Your task to perform on an android device: Open the stopwatch Image 0: 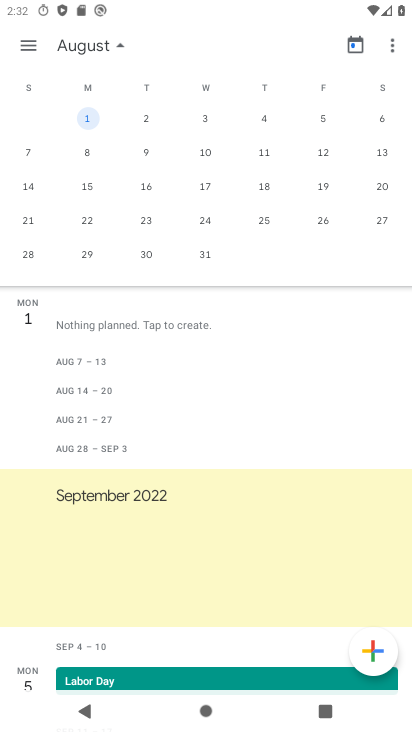
Step 0: press home button
Your task to perform on an android device: Open the stopwatch Image 1: 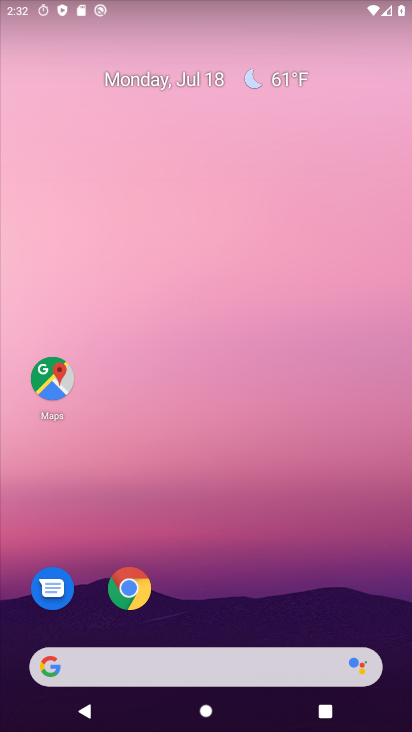
Step 1: drag from (276, 518) to (231, 30)
Your task to perform on an android device: Open the stopwatch Image 2: 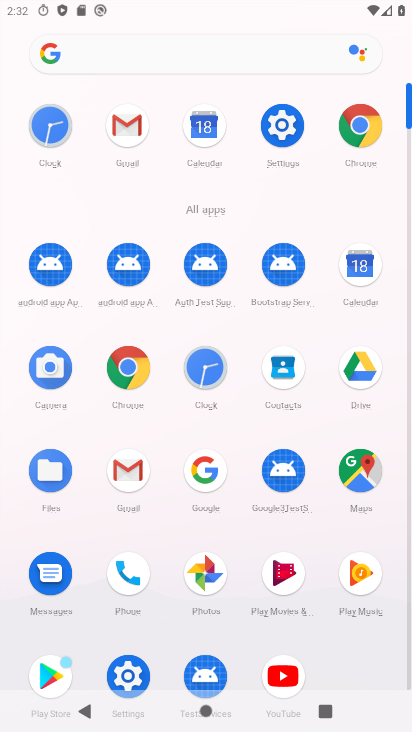
Step 2: click (213, 383)
Your task to perform on an android device: Open the stopwatch Image 3: 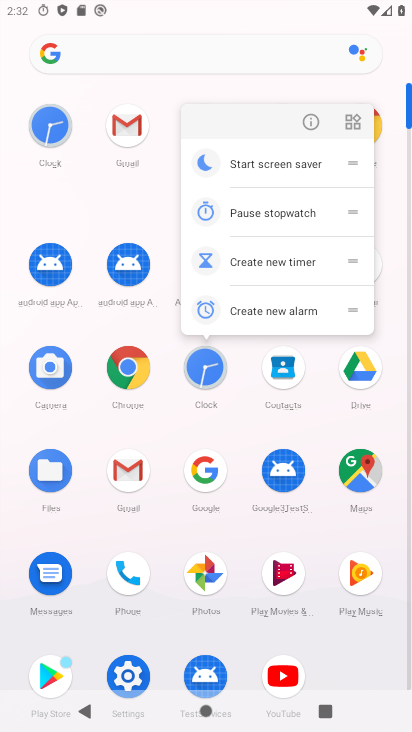
Step 3: click (209, 378)
Your task to perform on an android device: Open the stopwatch Image 4: 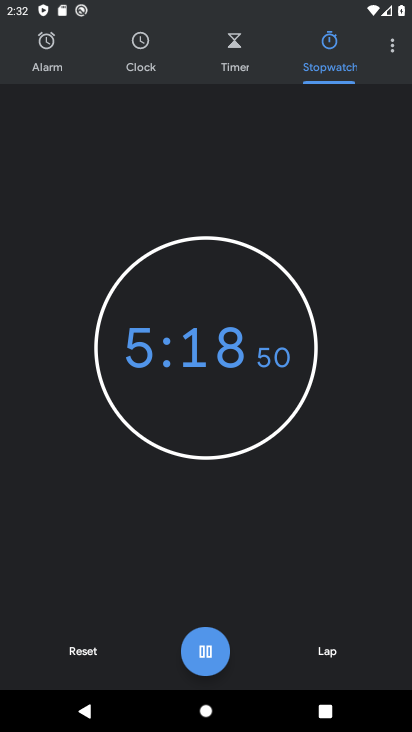
Step 4: task complete